Your task to perform on an android device: Open Chrome and go to the settings page Image 0: 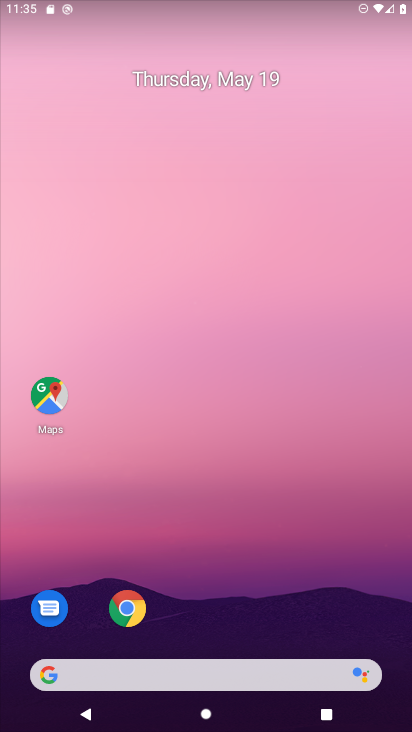
Step 0: press home button
Your task to perform on an android device: Open Chrome and go to the settings page Image 1: 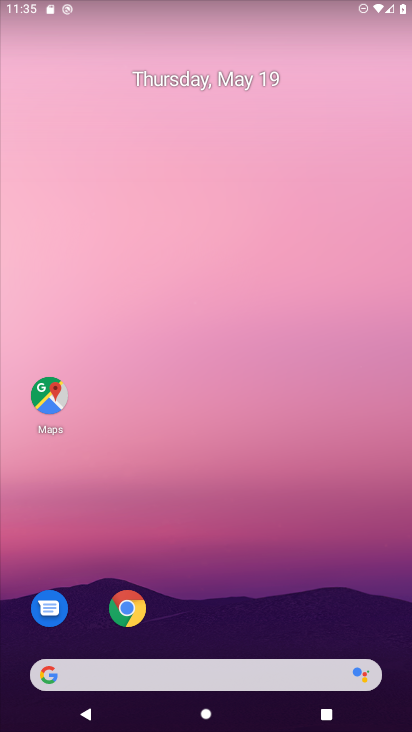
Step 1: click (140, 600)
Your task to perform on an android device: Open Chrome and go to the settings page Image 2: 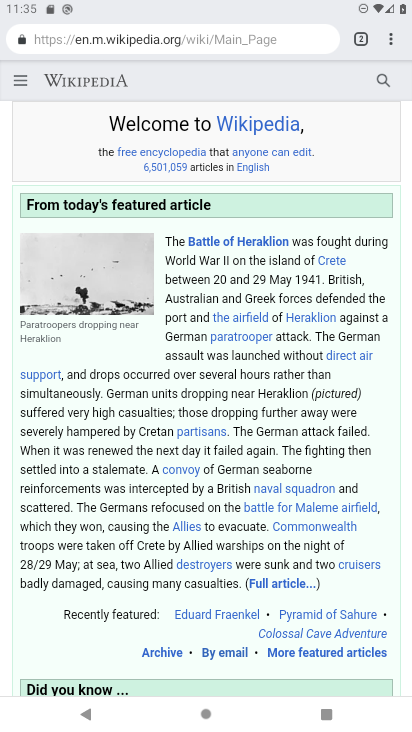
Step 2: task complete